Your task to perform on an android device: What's the weather today? Image 0: 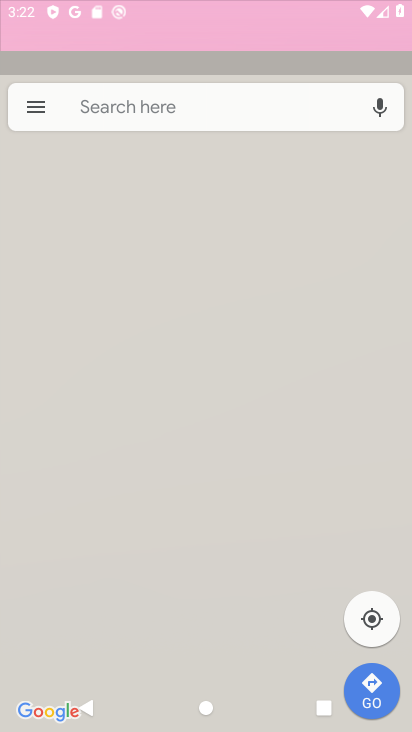
Step 0: click (264, 38)
Your task to perform on an android device: What's the weather today? Image 1: 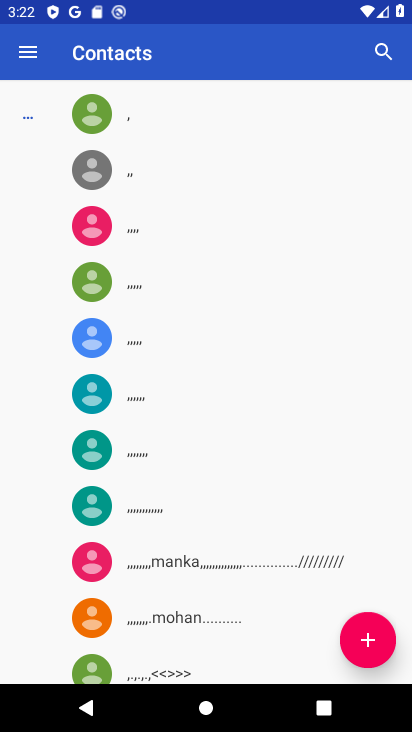
Step 1: press home button
Your task to perform on an android device: What's the weather today? Image 2: 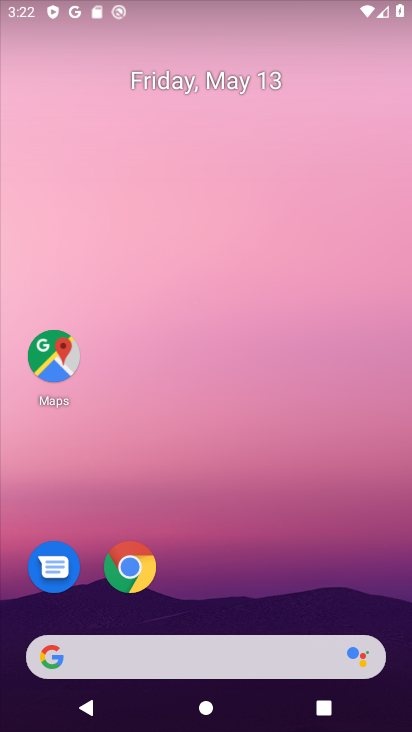
Step 2: drag from (12, 246) to (387, 433)
Your task to perform on an android device: What's the weather today? Image 3: 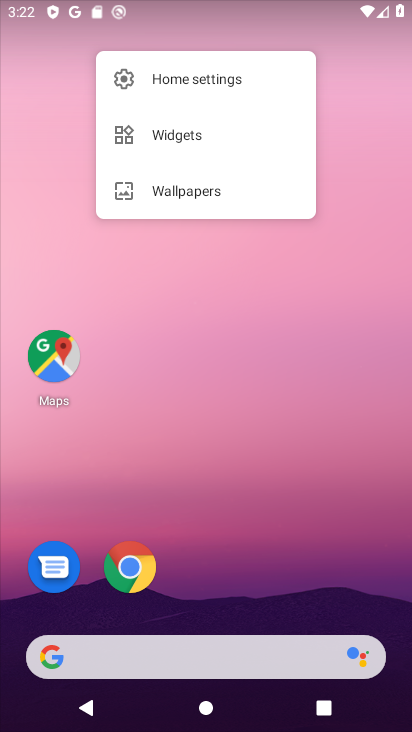
Step 3: click (248, 323)
Your task to perform on an android device: What's the weather today? Image 4: 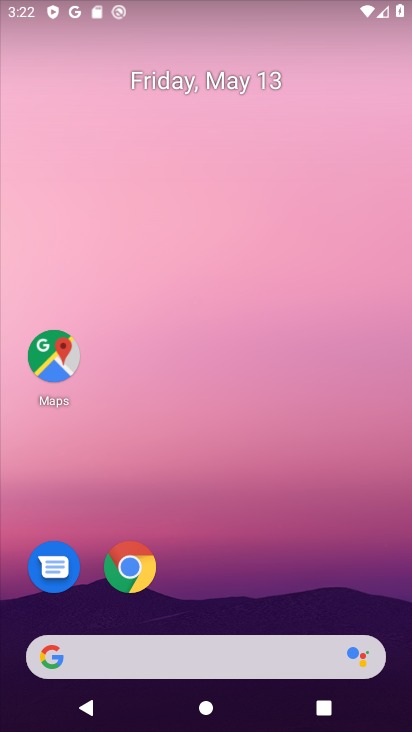
Step 4: drag from (45, 225) to (386, 43)
Your task to perform on an android device: What's the weather today? Image 5: 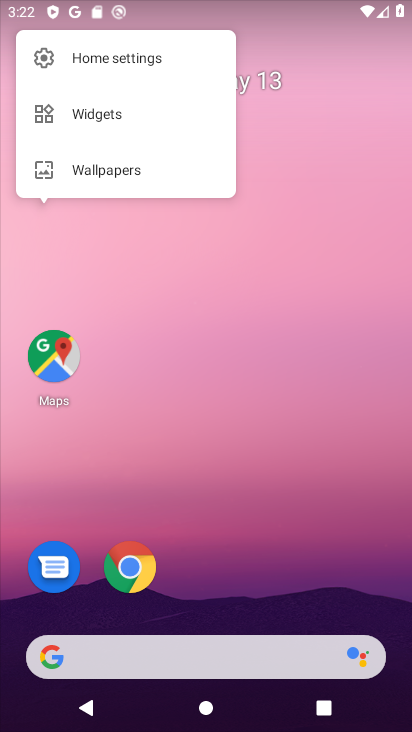
Step 5: drag from (165, 351) to (165, 305)
Your task to perform on an android device: What's the weather today? Image 6: 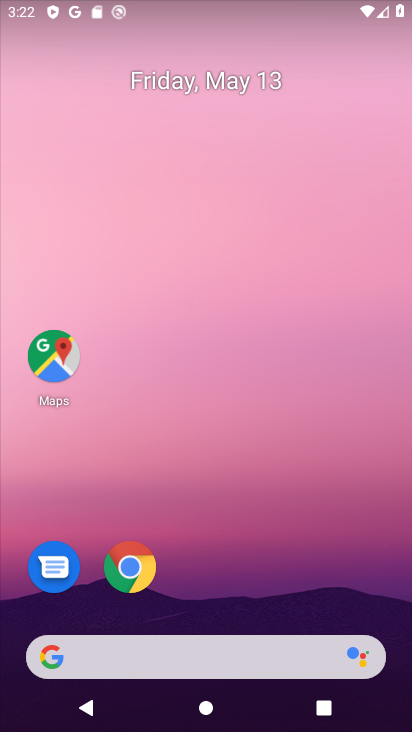
Step 6: drag from (7, 220) to (327, 350)
Your task to perform on an android device: What's the weather today? Image 7: 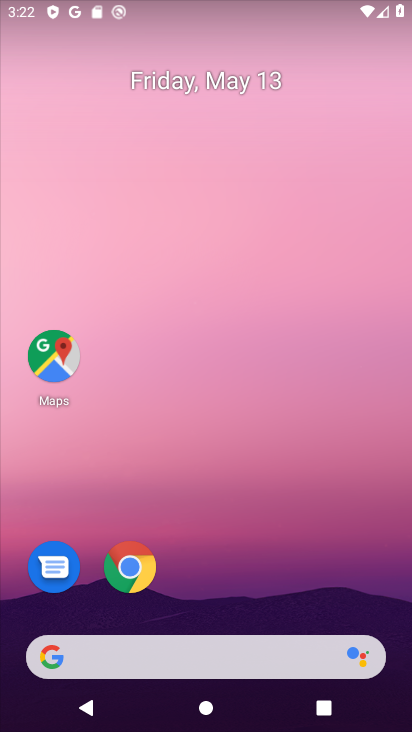
Step 7: drag from (128, 225) to (351, 411)
Your task to perform on an android device: What's the weather today? Image 8: 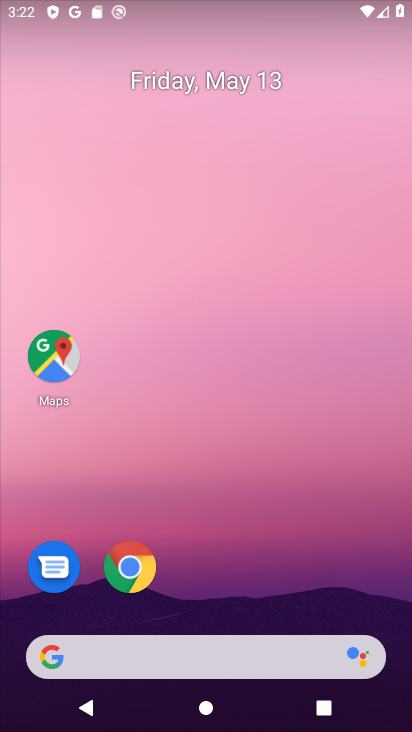
Step 8: drag from (41, 170) to (261, 350)
Your task to perform on an android device: What's the weather today? Image 9: 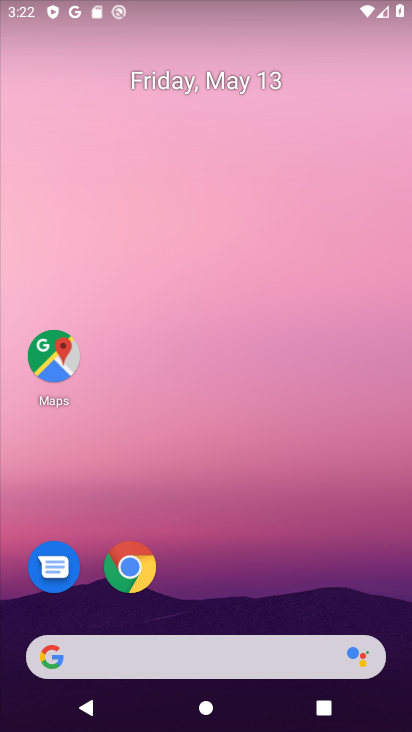
Step 9: drag from (2, 215) to (406, 326)
Your task to perform on an android device: What's the weather today? Image 10: 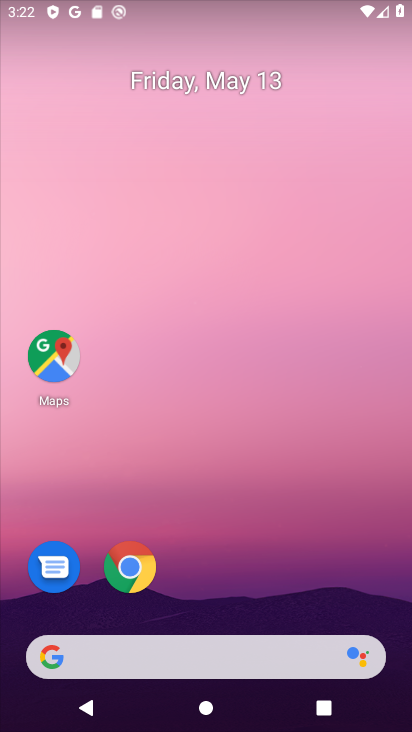
Step 10: drag from (20, 172) to (340, 468)
Your task to perform on an android device: What's the weather today? Image 11: 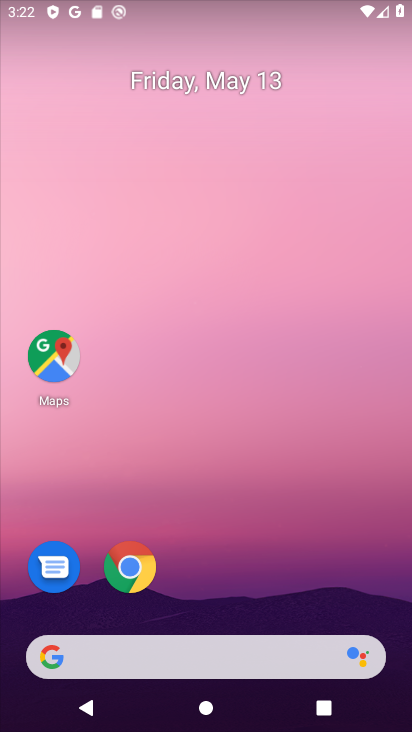
Step 11: drag from (3, 240) to (387, 490)
Your task to perform on an android device: What's the weather today? Image 12: 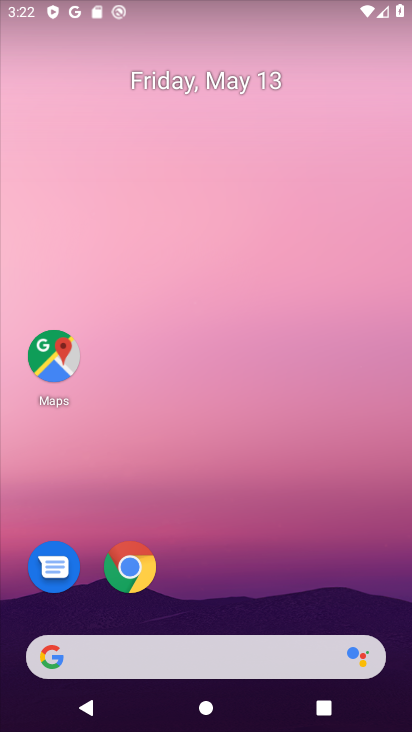
Step 12: drag from (163, 287) to (408, 355)
Your task to perform on an android device: What's the weather today? Image 13: 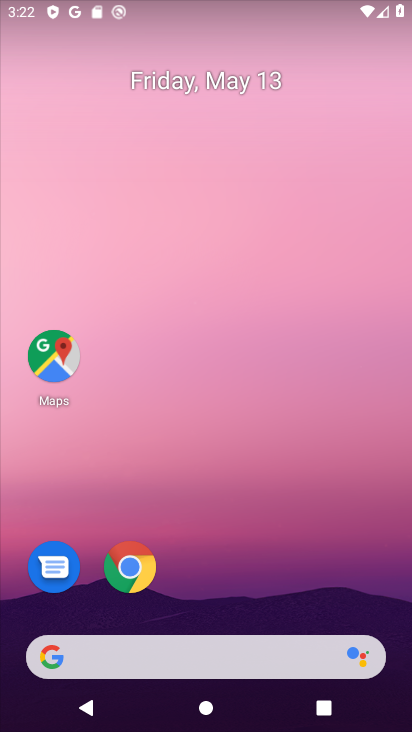
Step 13: drag from (44, 282) to (403, 439)
Your task to perform on an android device: What's the weather today? Image 14: 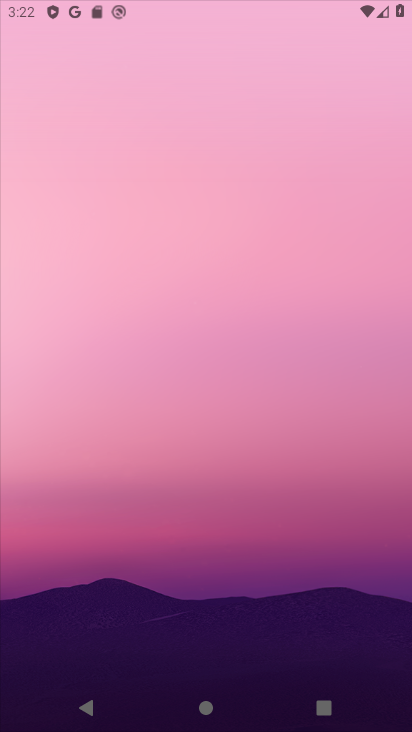
Step 14: drag from (175, 243) to (362, 307)
Your task to perform on an android device: What's the weather today? Image 15: 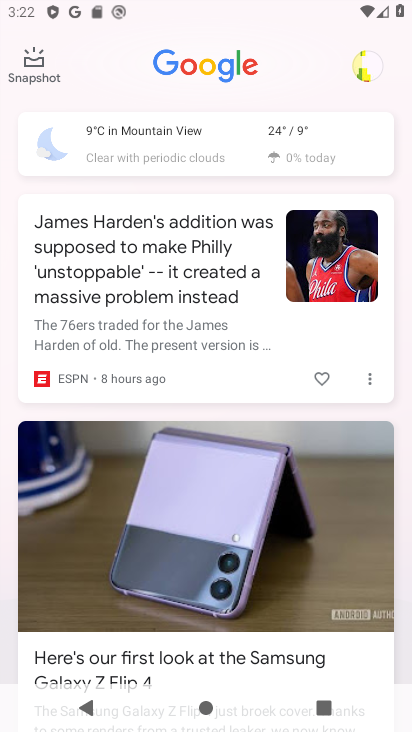
Step 15: click (175, 139)
Your task to perform on an android device: What's the weather today? Image 16: 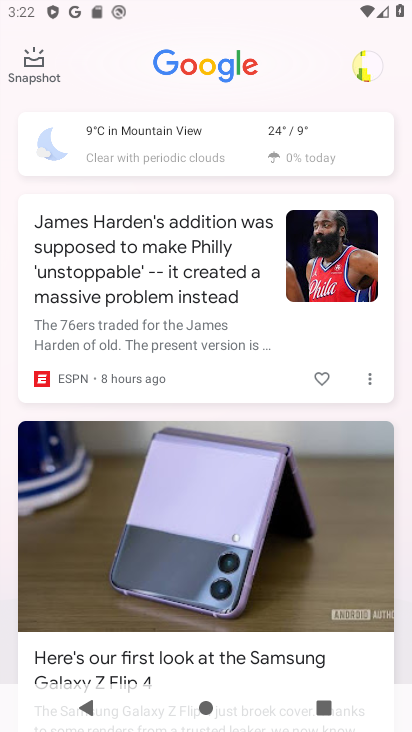
Step 16: click (173, 140)
Your task to perform on an android device: What's the weather today? Image 17: 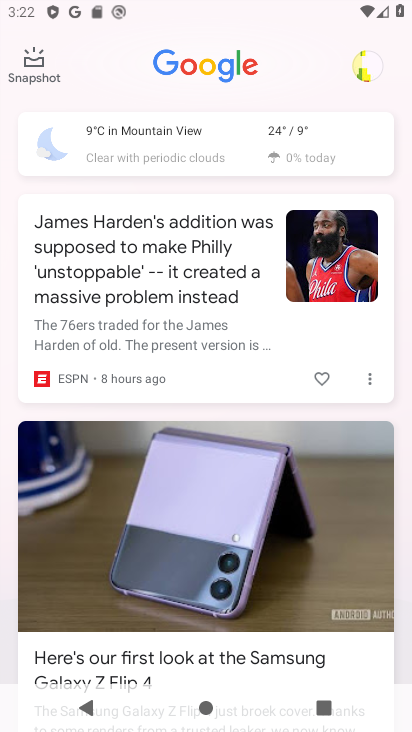
Step 17: click (173, 140)
Your task to perform on an android device: What's the weather today? Image 18: 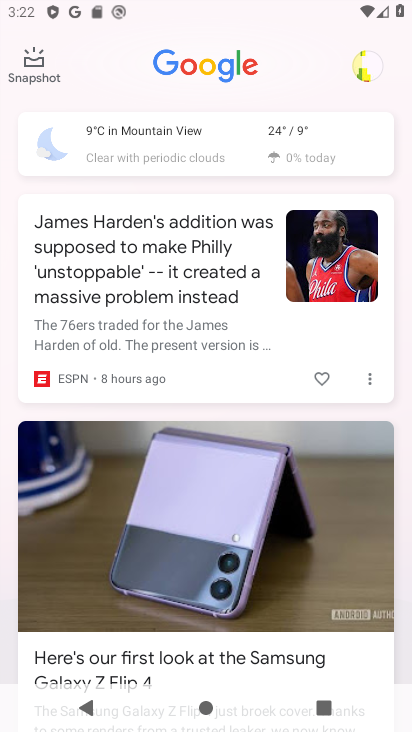
Step 18: click (173, 139)
Your task to perform on an android device: What's the weather today? Image 19: 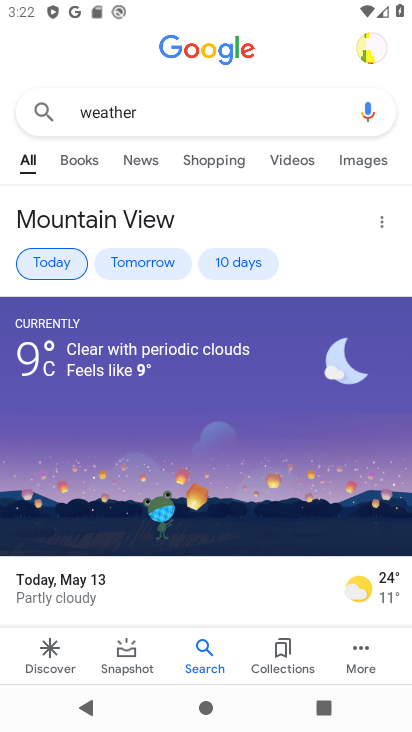
Step 19: click (34, 264)
Your task to perform on an android device: What's the weather today? Image 20: 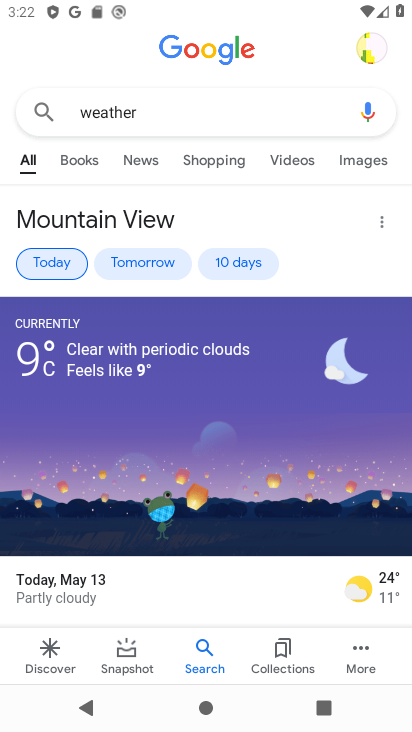
Step 20: drag from (111, 427) to (113, 265)
Your task to perform on an android device: What's the weather today? Image 21: 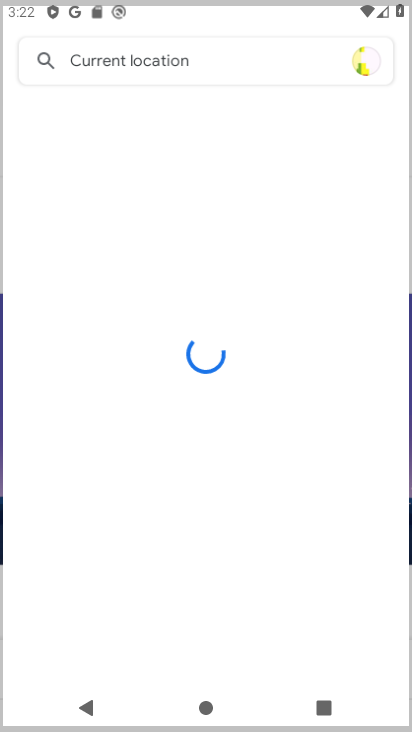
Step 21: drag from (107, 487) to (124, 371)
Your task to perform on an android device: What's the weather today? Image 22: 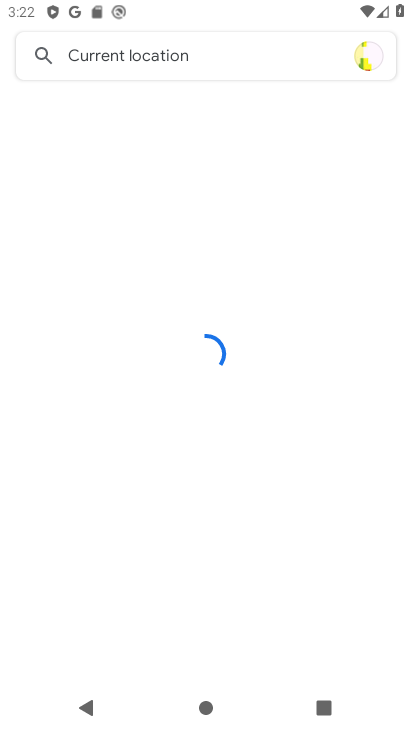
Step 22: drag from (114, 499) to (100, 265)
Your task to perform on an android device: What's the weather today? Image 23: 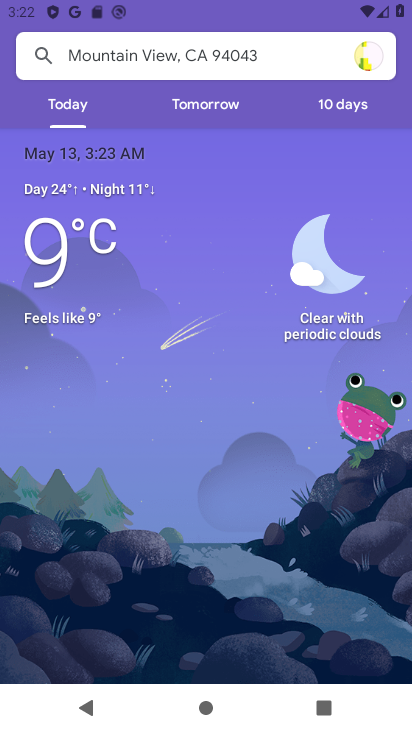
Step 23: drag from (165, 391) to (133, 1)
Your task to perform on an android device: What's the weather today? Image 24: 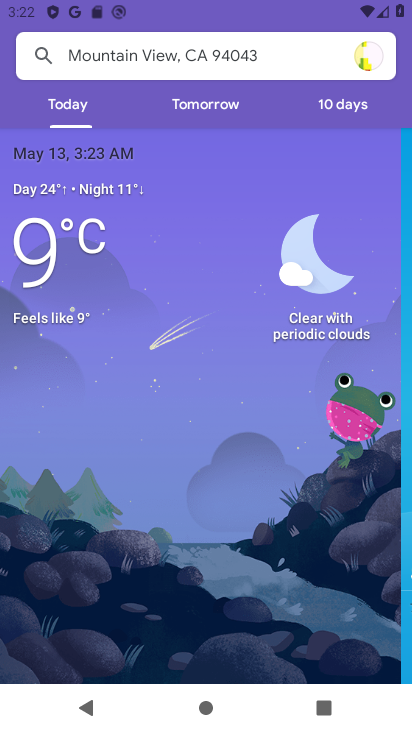
Step 24: drag from (72, 230) to (84, 60)
Your task to perform on an android device: What's the weather today? Image 25: 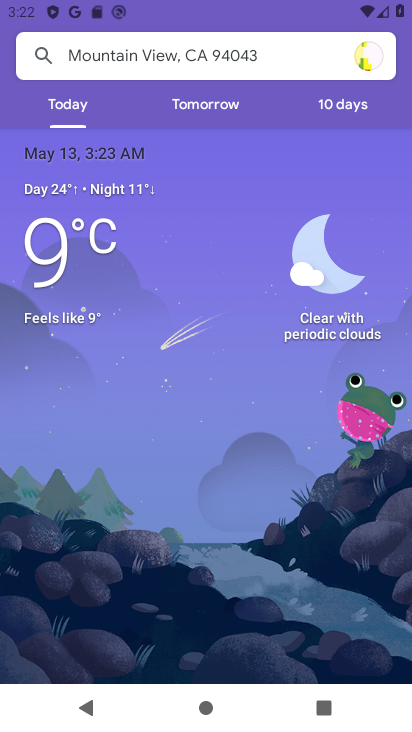
Step 25: drag from (114, 371) to (127, 185)
Your task to perform on an android device: What's the weather today? Image 26: 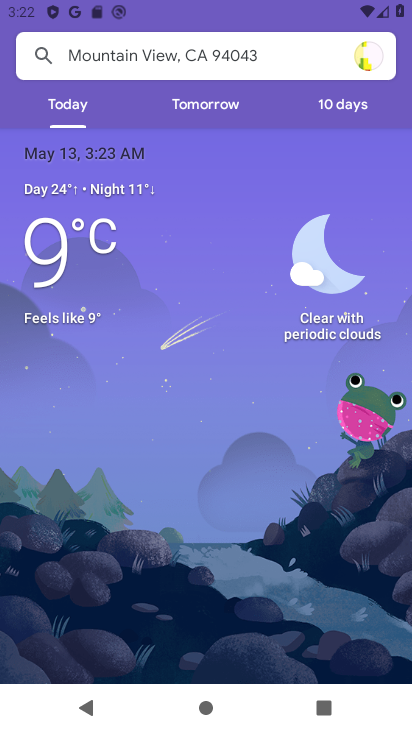
Step 26: drag from (114, 484) to (164, 118)
Your task to perform on an android device: What's the weather today? Image 27: 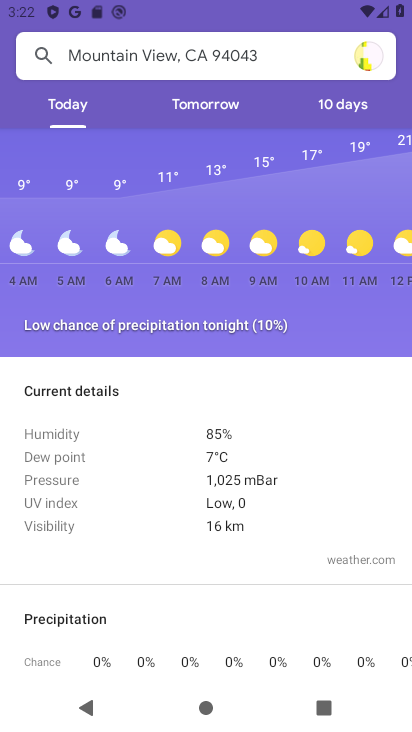
Step 27: drag from (195, 486) to (244, 215)
Your task to perform on an android device: What's the weather today? Image 28: 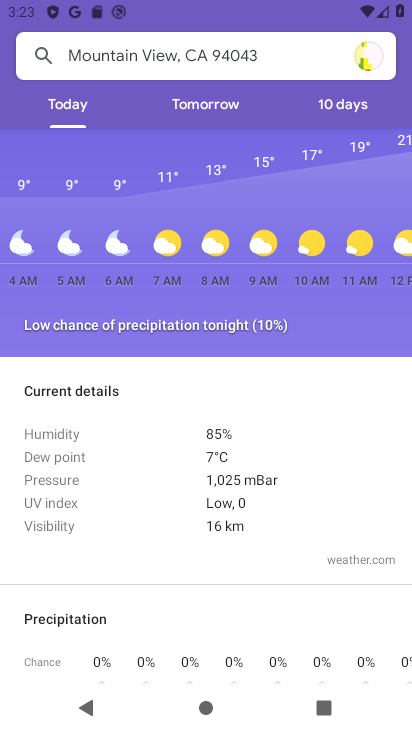
Step 28: click (162, 265)
Your task to perform on an android device: What's the weather today? Image 29: 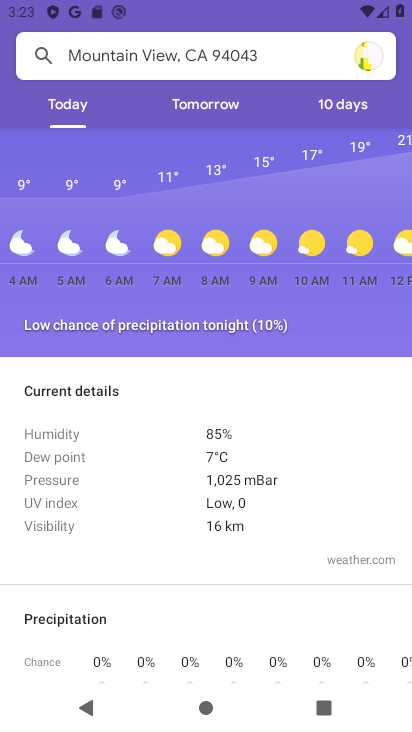
Step 29: click (162, 265)
Your task to perform on an android device: What's the weather today? Image 30: 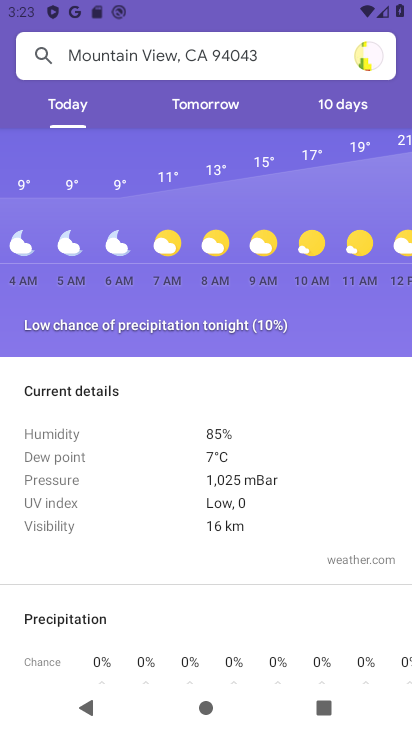
Step 30: click (162, 265)
Your task to perform on an android device: What's the weather today? Image 31: 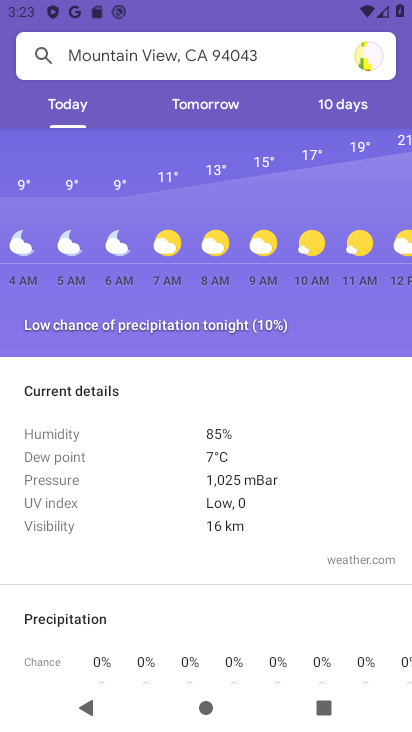
Step 31: click (162, 267)
Your task to perform on an android device: What's the weather today? Image 32: 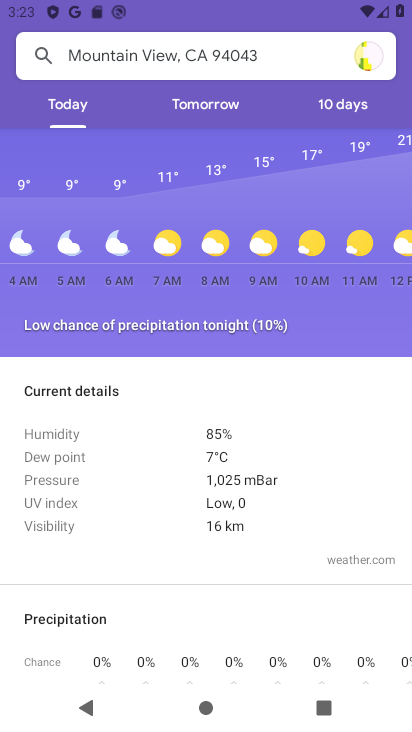
Step 32: click (162, 267)
Your task to perform on an android device: What's the weather today? Image 33: 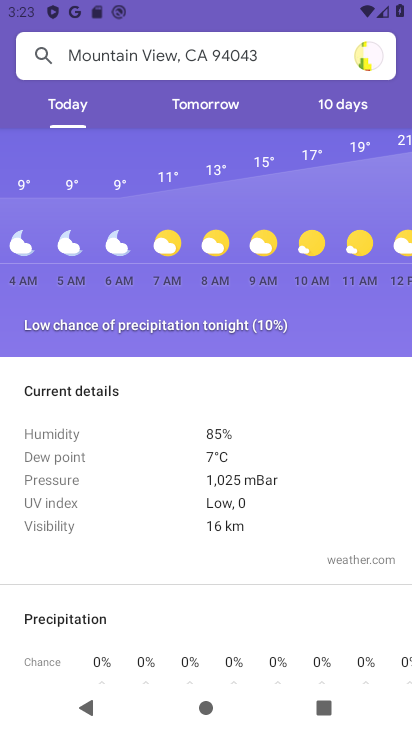
Step 33: click (165, 273)
Your task to perform on an android device: What's the weather today? Image 34: 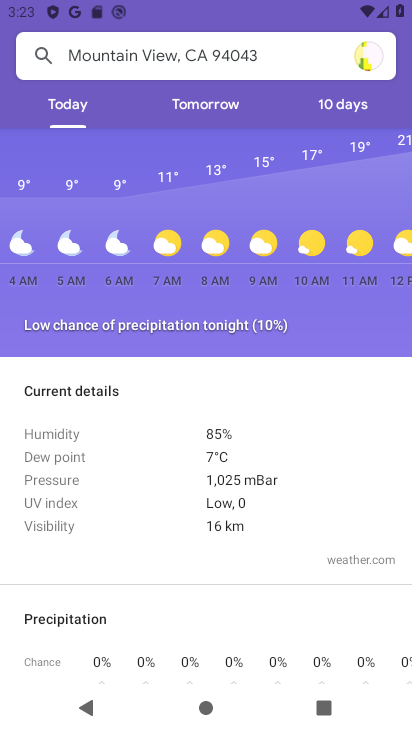
Step 34: click (190, 204)
Your task to perform on an android device: What's the weather today? Image 35: 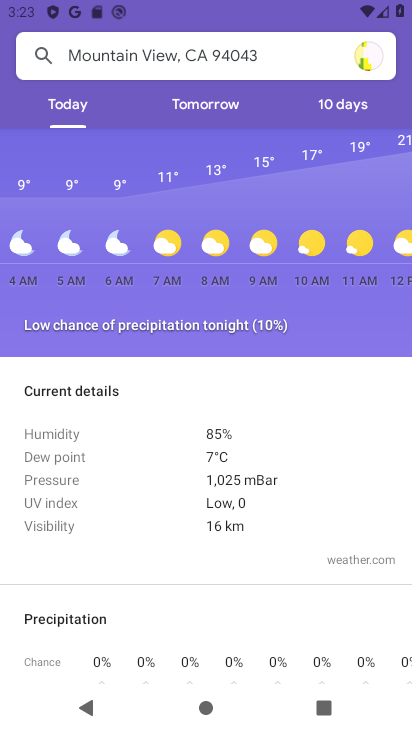
Step 35: click (197, 201)
Your task to perform on an android device: What's the weather today? Image 36: 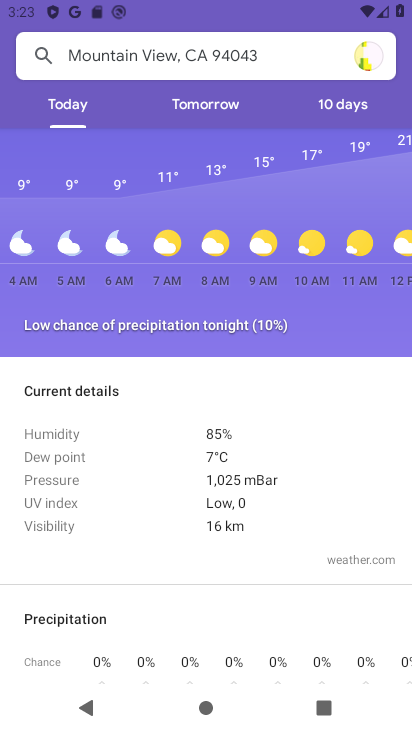
Step 36: click (197, 201)
Your task to perform on an android device: What's the weather today? Image 37: 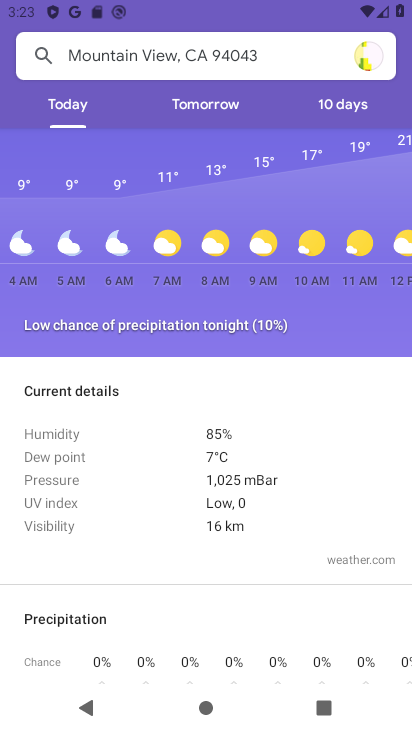
Step 37: drag from (124, 202) to (189, 425)
Your task to perform on an android device: What's the weather today? Image 38: 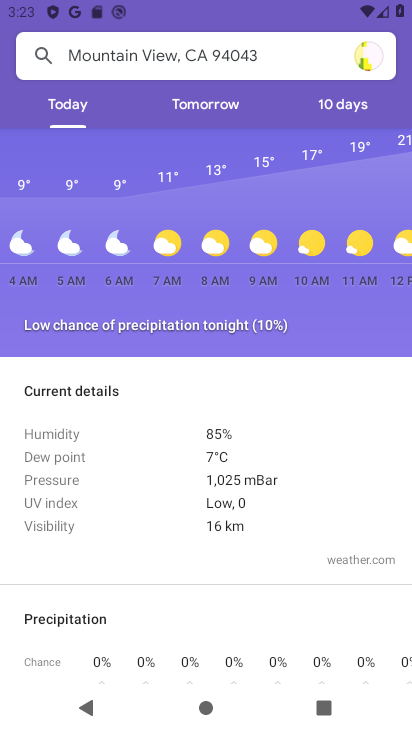
Step 38: drag from (130, 192) to (158, 379)
Your task to perform on an android device: What's the weather today? Image 39: 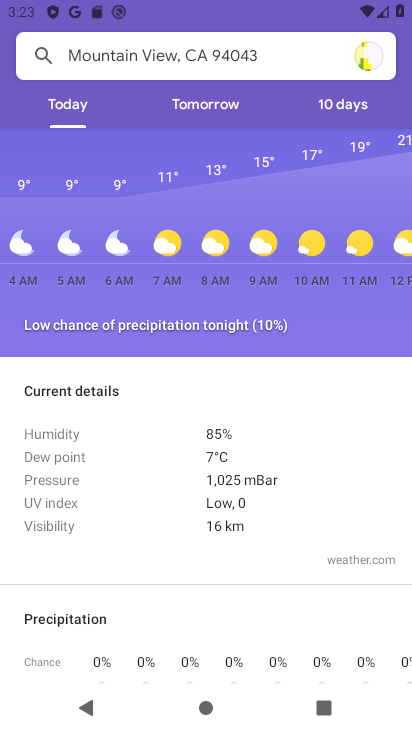
Step 39: drag from (117, 191) to (165, 339)
Your task to perform on an android device: What's the weather today? Image 40: 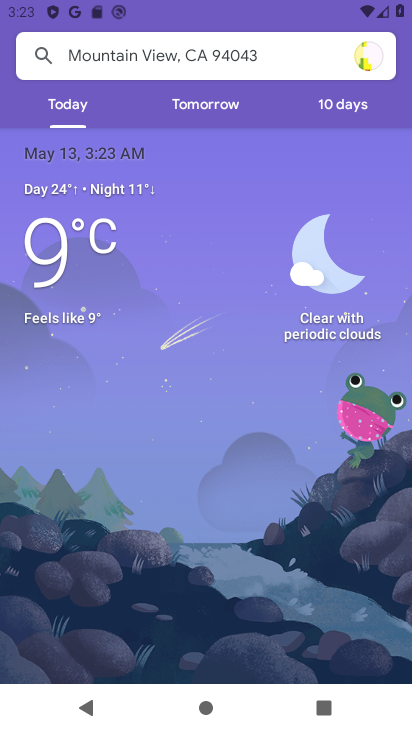
Step 40: drag from (134, 182) to (188, 358)
Your task to perform on an android device: What's the weather today? Image 41: 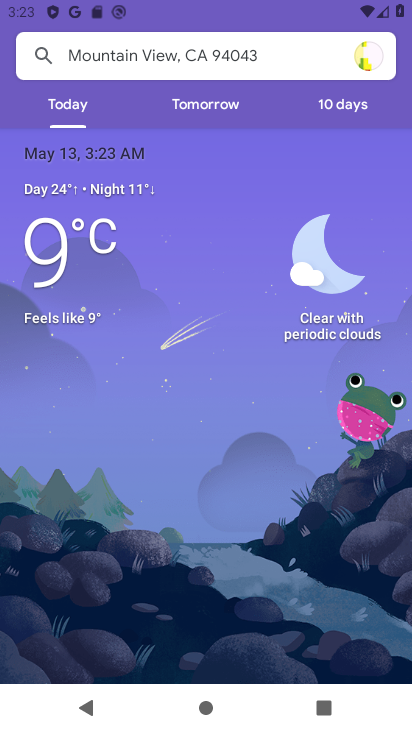
Step 41: click (114, 366)
Your task to perform on an android device: What's the weather today? Image 42: 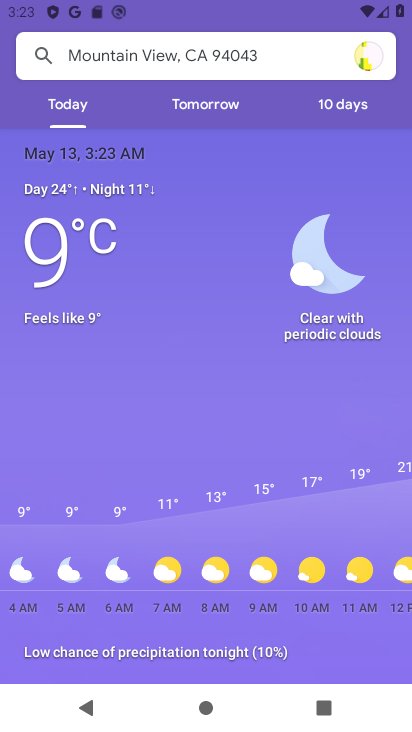
Step 42: task complete